Your task to perform on an android device: Open Chrome and go to settings Image 0: 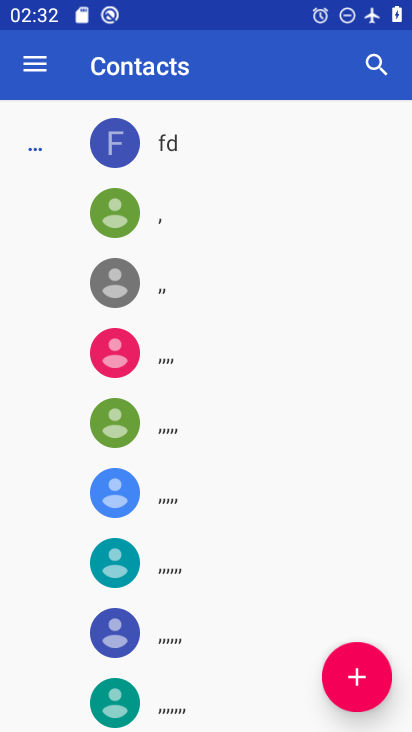
Step 0: press home button
Your task to perform on an android device: Open Chrome and go to settings Image 1: 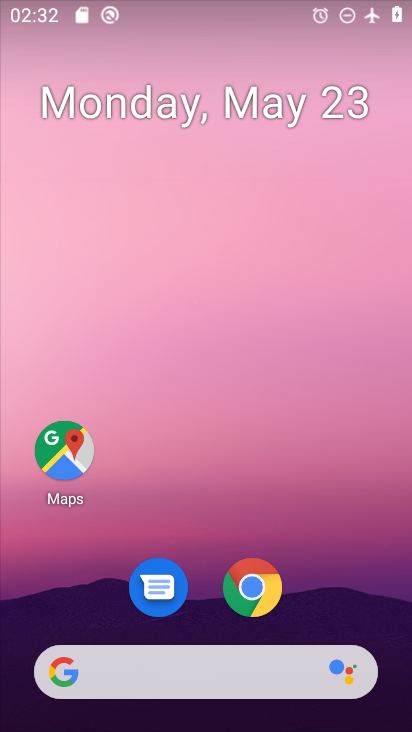
Step 1: click (269, 589)
Your task to perform on an android device: Open Chrome and go to settings Image 2: 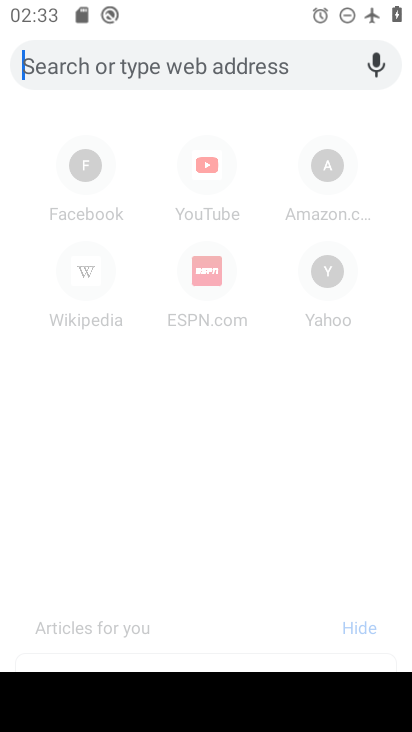
Step 2: press back button
Your task to perform on an android device: Open Chrome and go to settings Image 3: 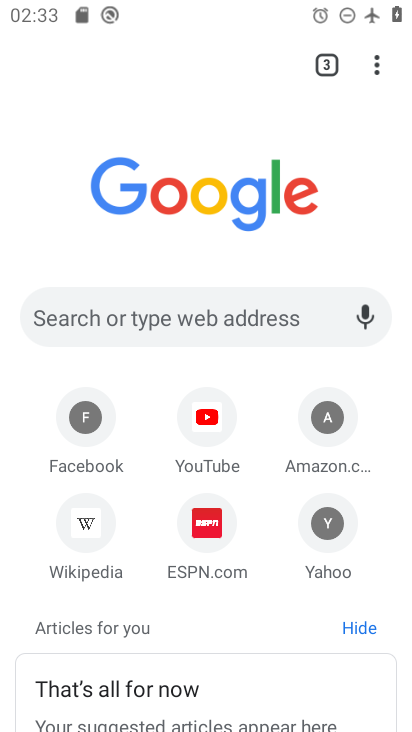
Step 3: click (377, 62)
Your task to perform on an android device: Open Chrome and go to settings Image 4: 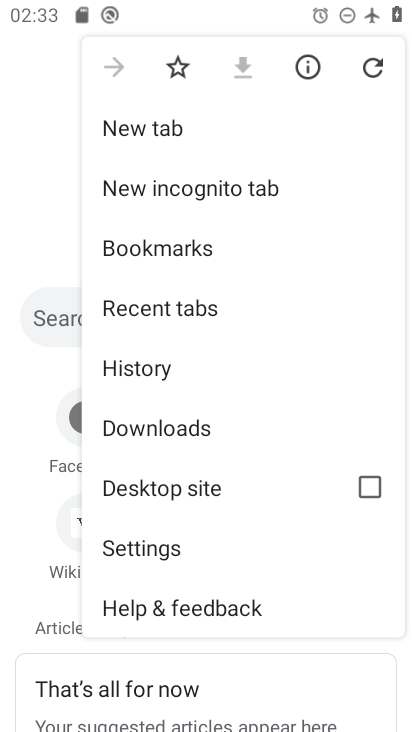
Step 4: click (172, 534)
Your task to perform on an android device: Open Chrome and go to settings Image 5: 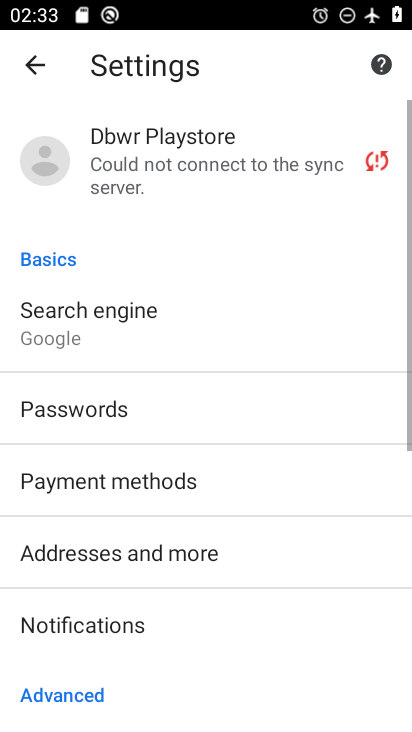
Step 5: task complete